Your task to perform on an android device: turn off javascript in the chrome app Image 0: 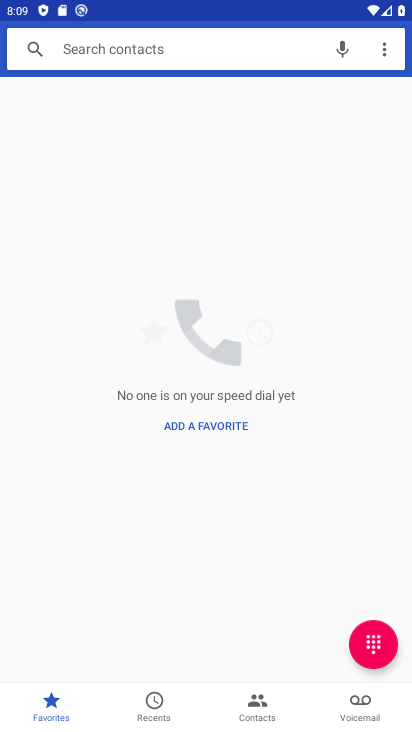
Step 0: press home button
Your task to perform on an android device: turn off javascript in the chrome app Image 1: 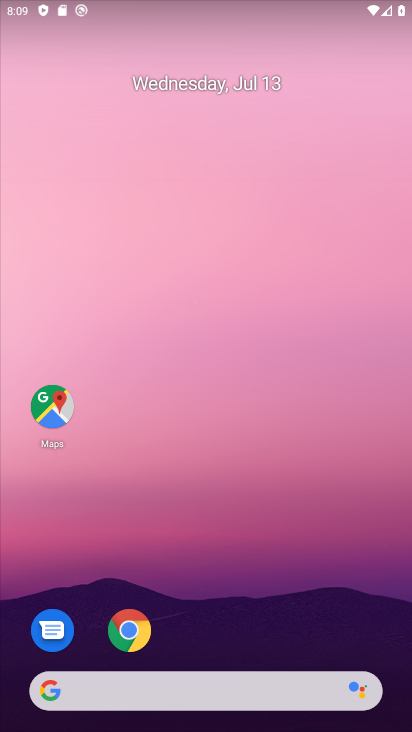
Step 1: click (129, 630)
Your task to perform on an android device: turn off javascript in the chrome app Image 2: 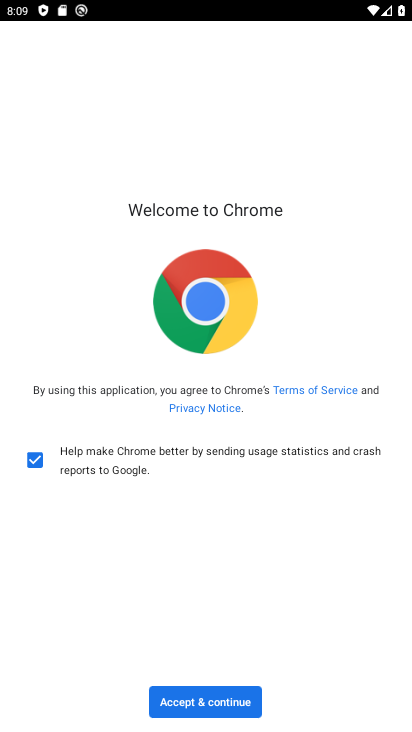
Step 2: click (204, 706)
Your task to perform on an android device: turn off javascript in the chrome app Image 3: 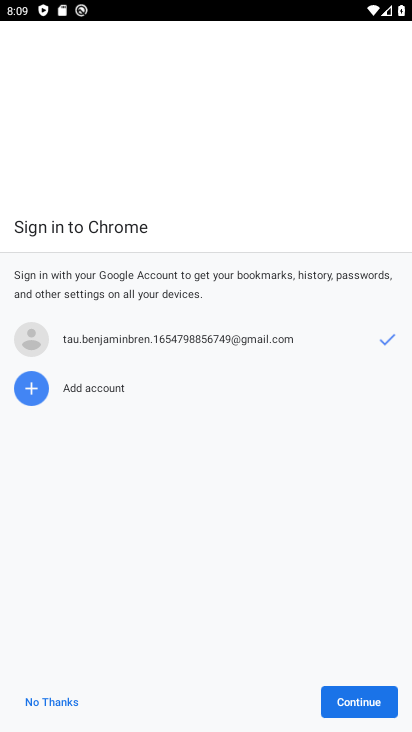
Step 3: click (358, 703)
Your task to perform on an android device: turn off javascript in the chrome app Image 4: 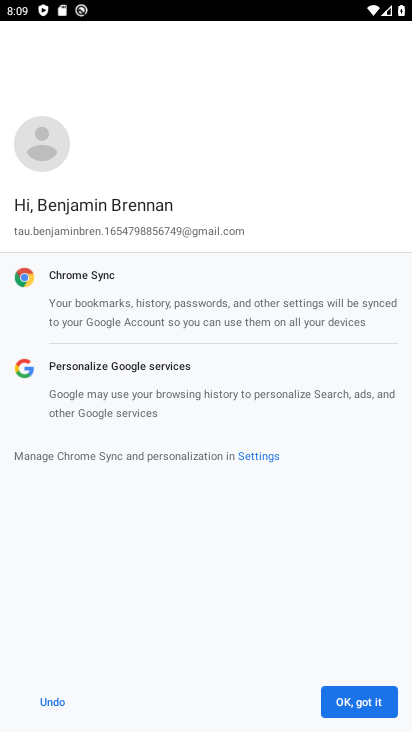
Step 4: click (358, 703)
Your task to perform on an android device: turn off javascript in the chrome app Image 5: 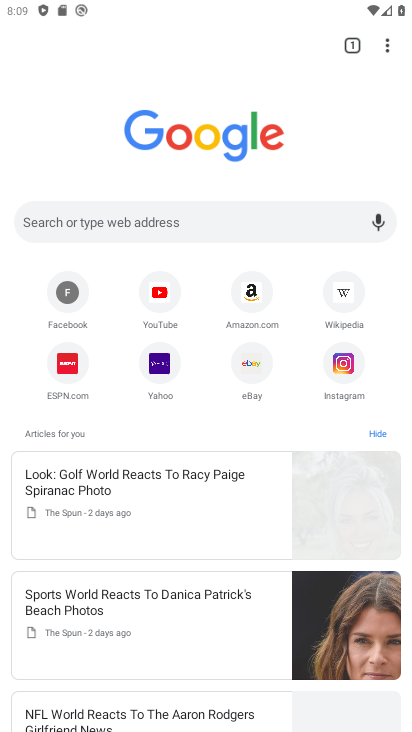
Step 5: click (388, 46)
Your task to perform on an android device: turn off javascript in the chrome app Image 6: 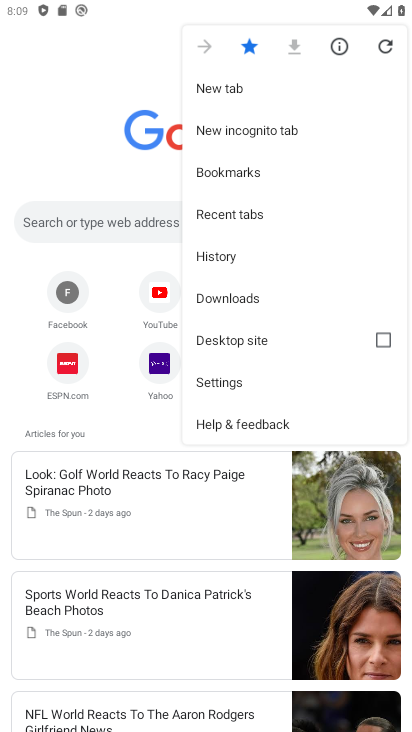
Step 6: click (220, 381)
Your task to perform on an android device: turn off javascript in the chrome app Image 7: 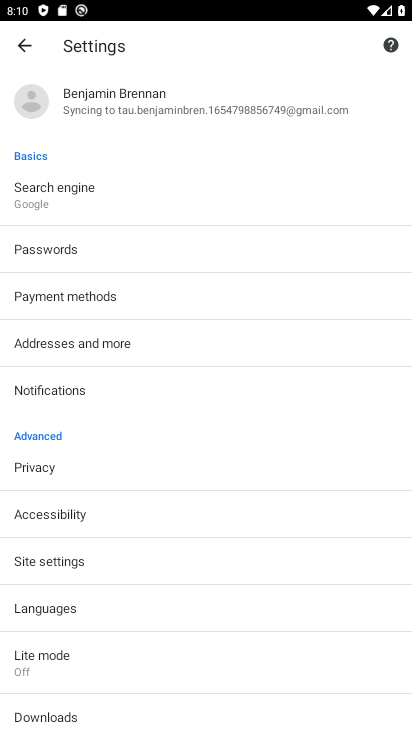
Step 7: click (60, 562)
Your task to perform on an android device: turn off javascript in the chrome app Image 8: 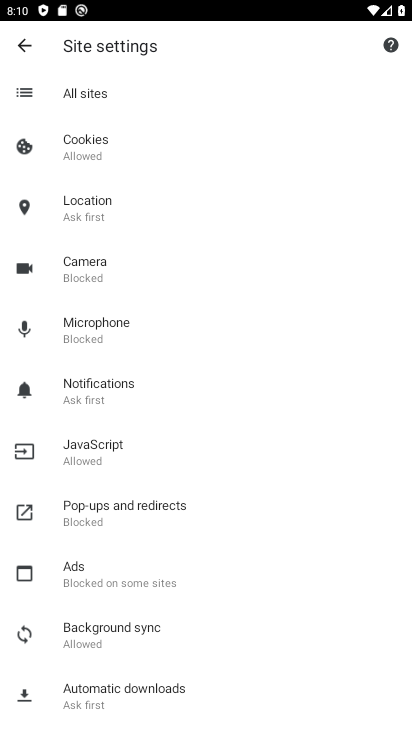
Step 8: click (101, 461)
Your task to perform on an android device: turn off javascript in the chrome app Image 9: 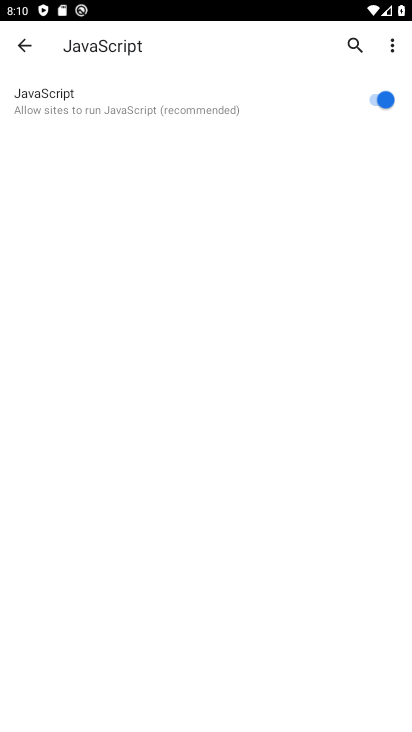
Step 9: click (375, 99)
Your task to perform on an android device: turn off javascript in the chrome app Image 10: 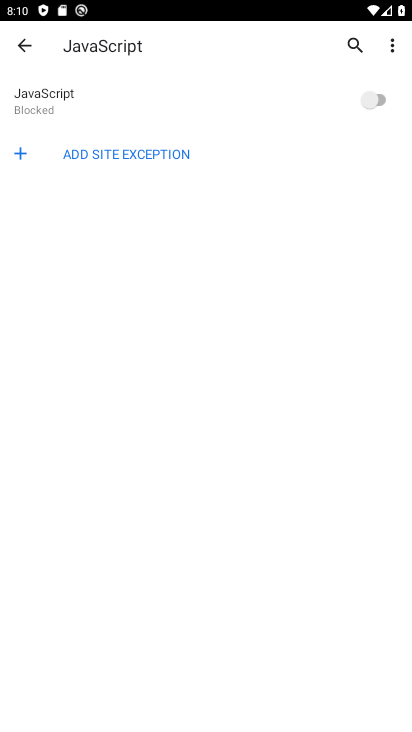
Step 10: task complete